Your task to perform on an android device: delete a single message in the gmail app Image 0: 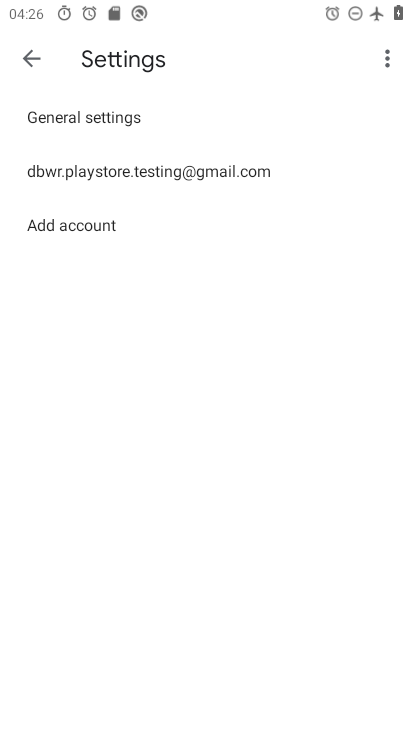
Step 0: press home button
Your task to perform on an android device: delete a single message in the gmail app Image 1: 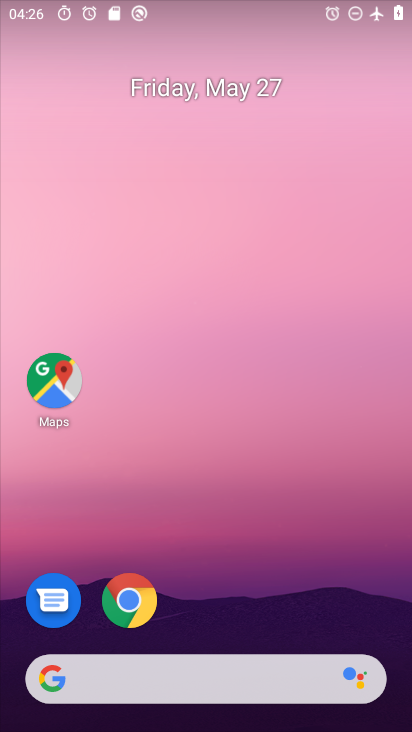
Step 1: drag from (194, 716) to (175, 135)
Your task to perform on an android device: delete a single message in the gmail app Image 2: 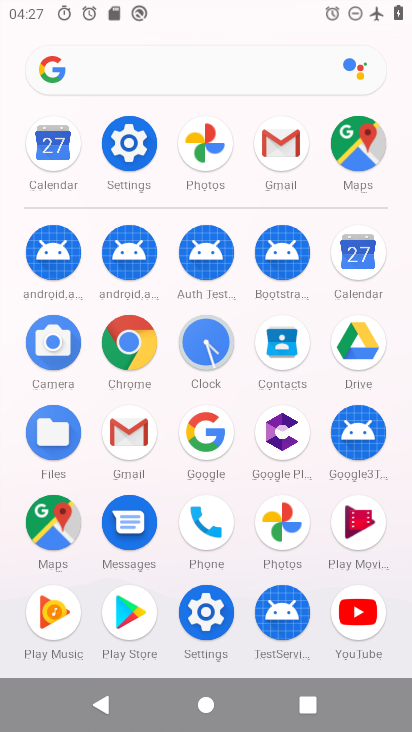
Step 2: click (121, 430)
Your task to perform on an android device: delete a single message in the gmail app Image 3: 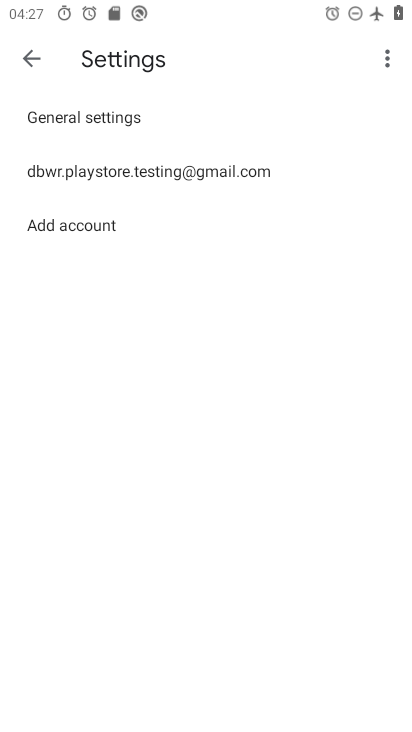
Step 3: click (30, 53)
Your task to perform on an android device: delete a single message in the gmail app Image 4: 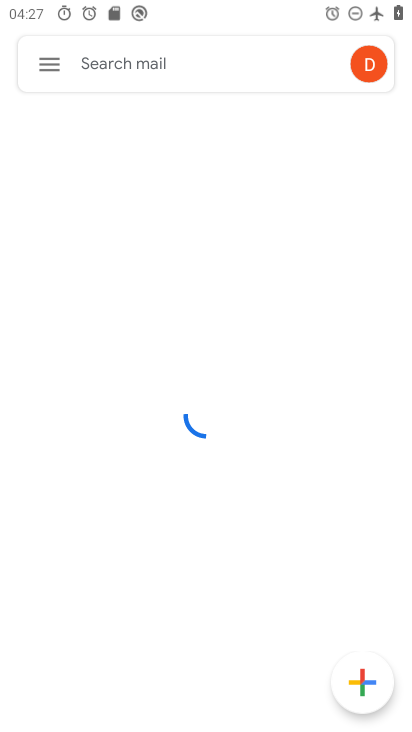
Step 4: task complete